Your task to perform on an android device: find which apps use the phone's location Image 0: 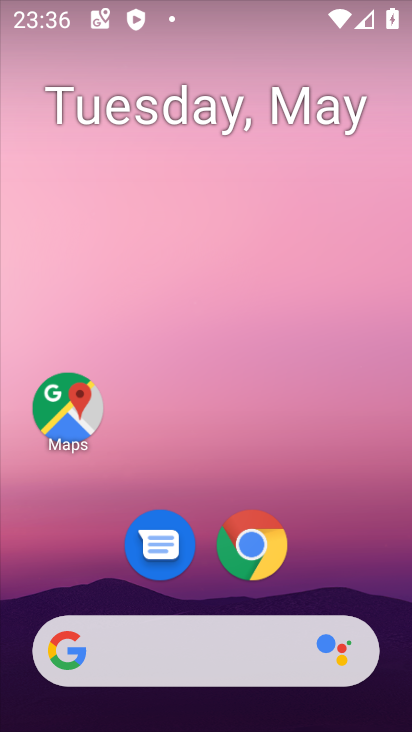
Step 0: drag from (204, 585) to (205, 238)
Your task to perform on an android device: find which apps use the phone's location Image 1: 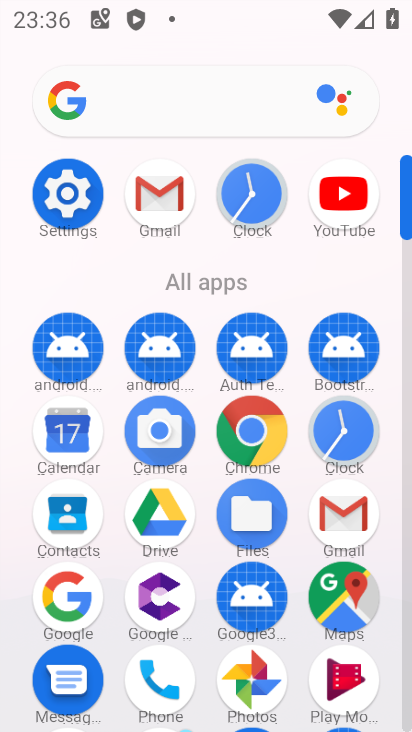
Step 1: drag from (205, 488) to (257, 179)
Your task to perform on an android device: find which apps use the phone's location Image 2: 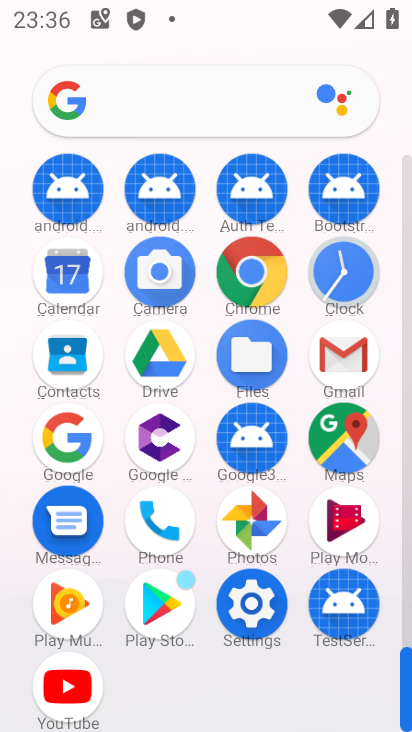
Step 2: click (254, 610)
Your task to perform on an android device: find which apps use the phone's location Image 3: 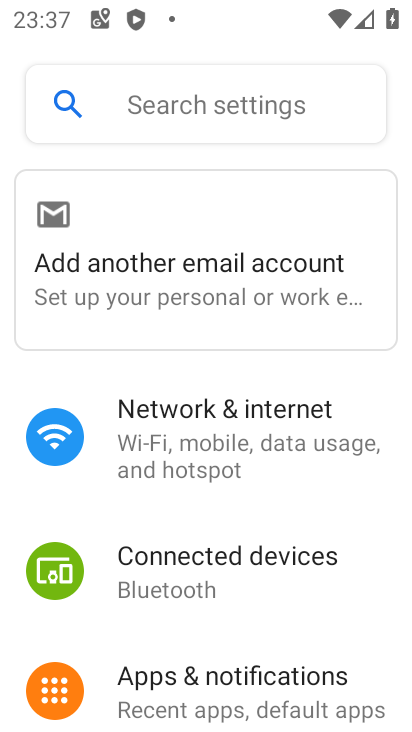
Step 3: drag from (204, 623) to (223, 291)
Your task to perform on an android device: find which apps use the phone's location Image 4: 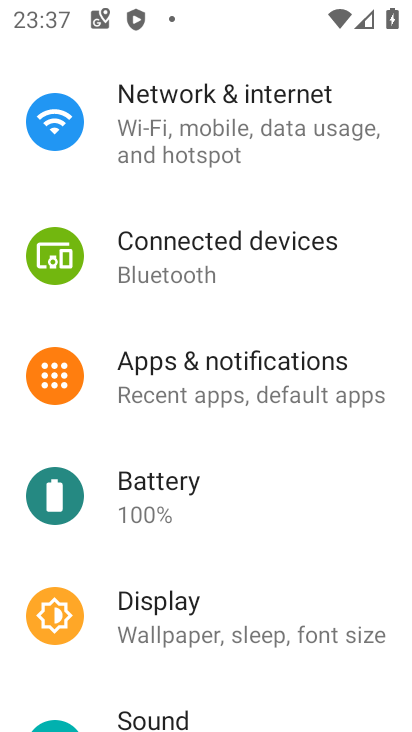
Step 4: drag from (238, 688) to (267, 335)
Your task to perform on an android device: find which apps use the phone's location Image 5: 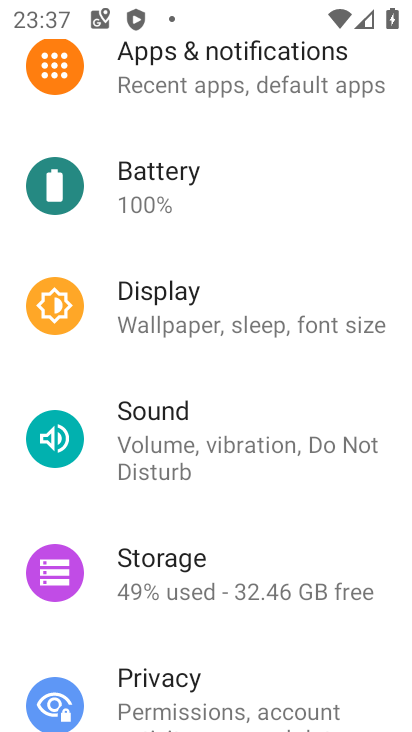
Step 5: drag from (255, 672) to (266, 366)
Your task to perform on an android device: find which apps use the phone's location Image 6: 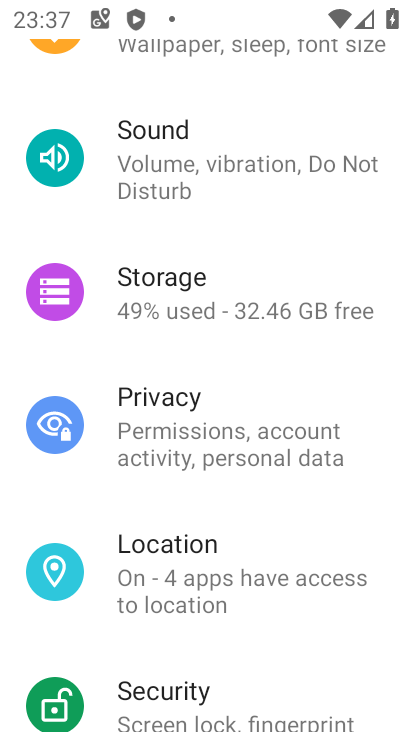
Step 6: click (217, 596)
Your task to perform on an android device: find which apps use the phone's location Image 7: 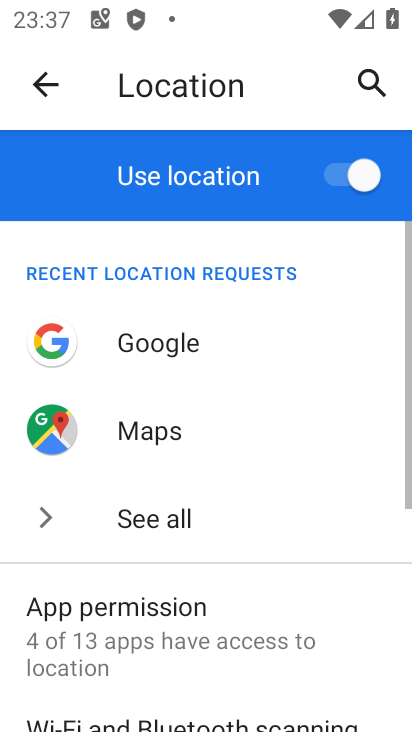
Step 7: click (167, 512)
Your task to perform on an android device: find which apps use the phone's location Image 8: 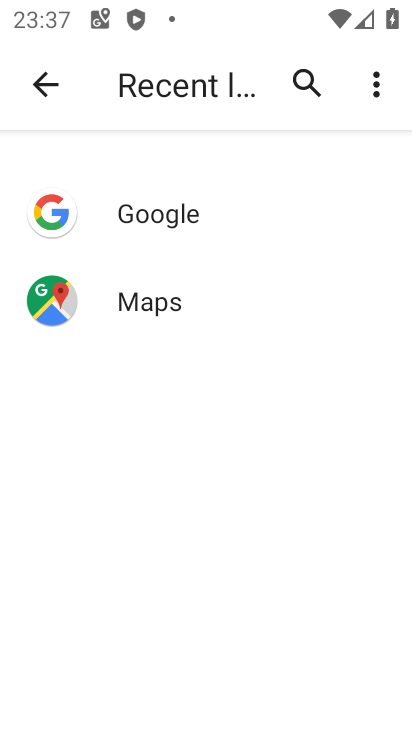
Step 8: task complete